Your task to perform on an android device: Open Youtube and go to the subscriptions tab Image 0: 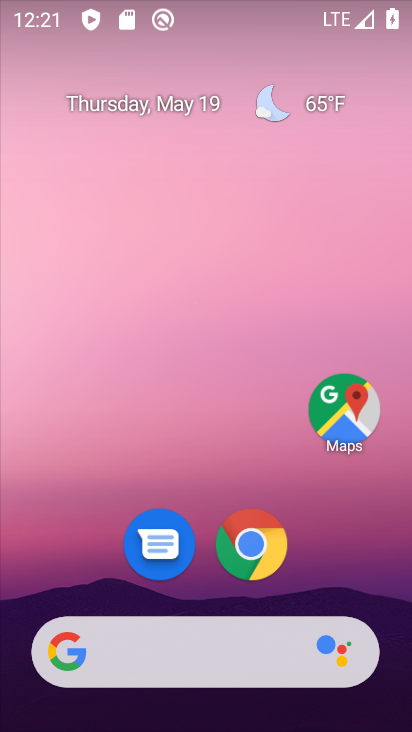
Step 0: drag from (357, 549) to (339, 125)
Your task to perform on an android device: Open Youtube and go to the subscriptions tab Image 1: 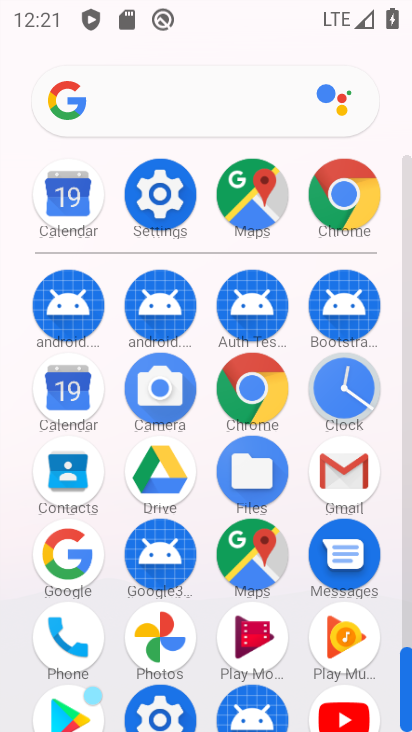
Step 1: drag from (377, 575) to (359, 281)
Your task to perform on an android device: Open Youtube and go to the subscriptions tab Image 2: 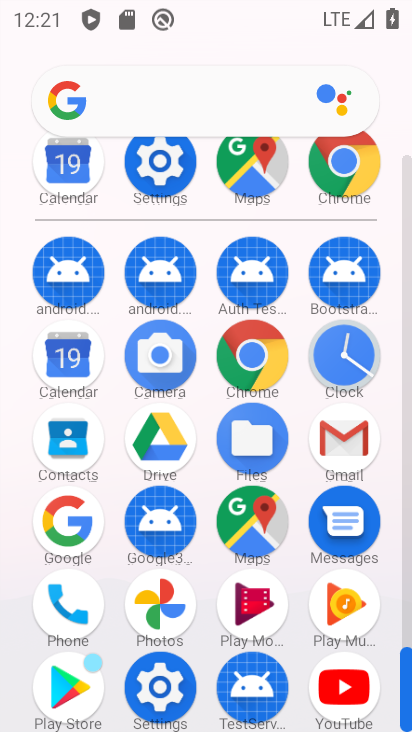
Step 2: click (326, 694)
Your task to perform on an android device: Open Youtube and go to the subscriptions tab Image 3: 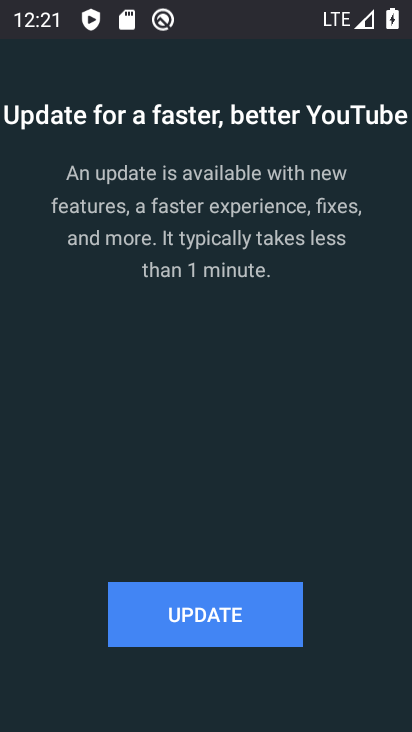
Step 3: click (263, 617)
Your task to perform on an android device: Open Youtube and go to the subscriptions tab Image 4: 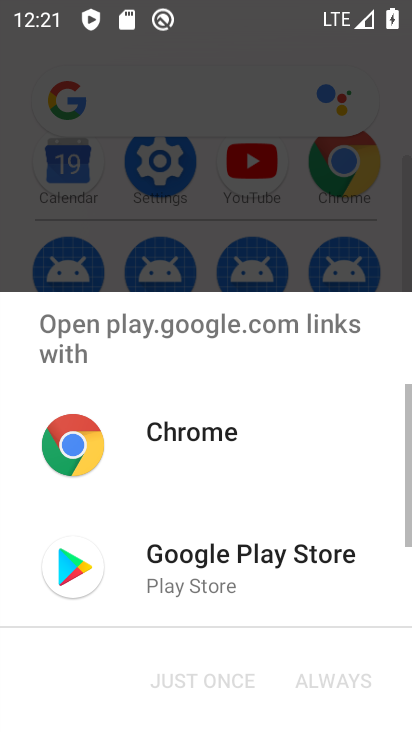
Step 4: click (262, 571)
Your task to perform on an android device: Open Youtube and go to the subscriptions tab Image 5: 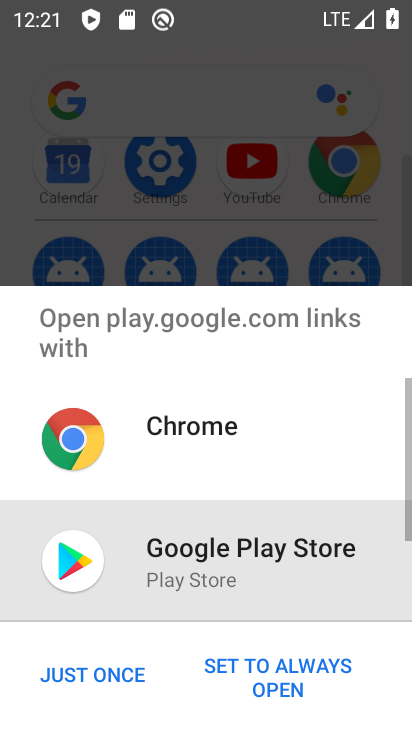
Step 5: click (107, 678)
Your task to perform on an android device: Open Youtube and go to the subscriptions tab Image 6: 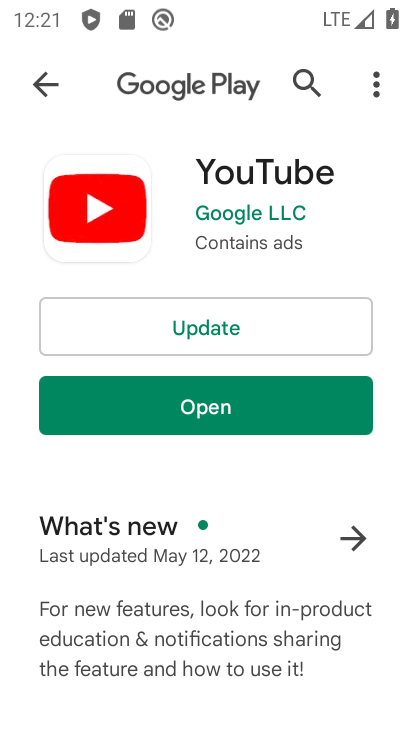
Step 6: click (229, 315)
Your task to perform on an android device: Open Youtube and go to the subscriptions tab Image 7: 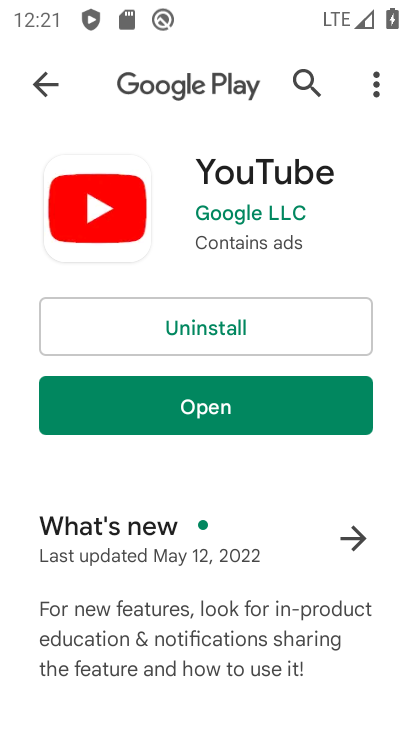
Step 7: click (291, 424)
Your task to perform on an android device: Open Youtube and go to the subscriptions tab Image 8: 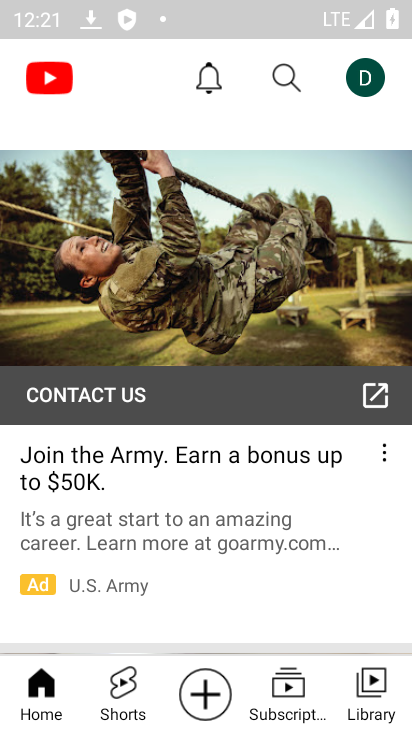
Step 8: click (293, 699)
Your task to perform on an android device: Open Youtube and go to the subscriptions tab Image 9: 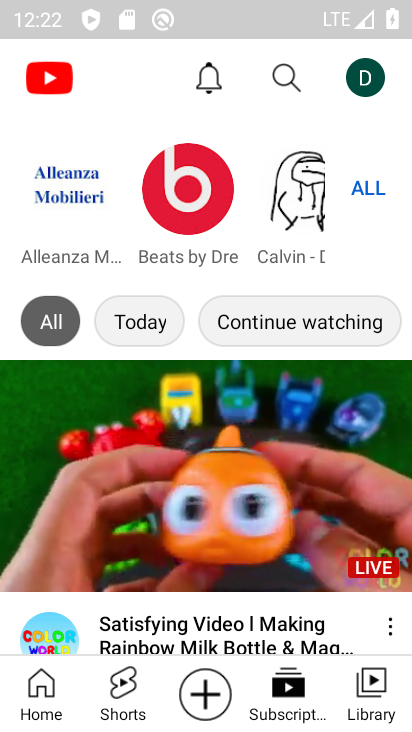
Step 9: task complete